Your task to perform on an android device: change alarm snooze length Image 0: 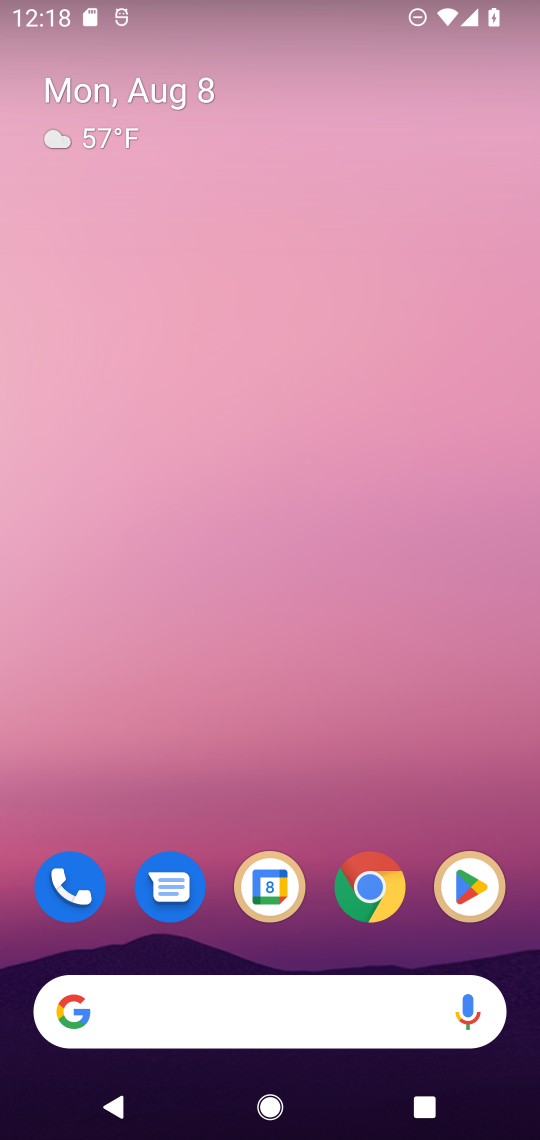
Step 0: drag from (374, 781) to (282, 75)
Your task to perform on an android device: change alarm snooze length Image 1: 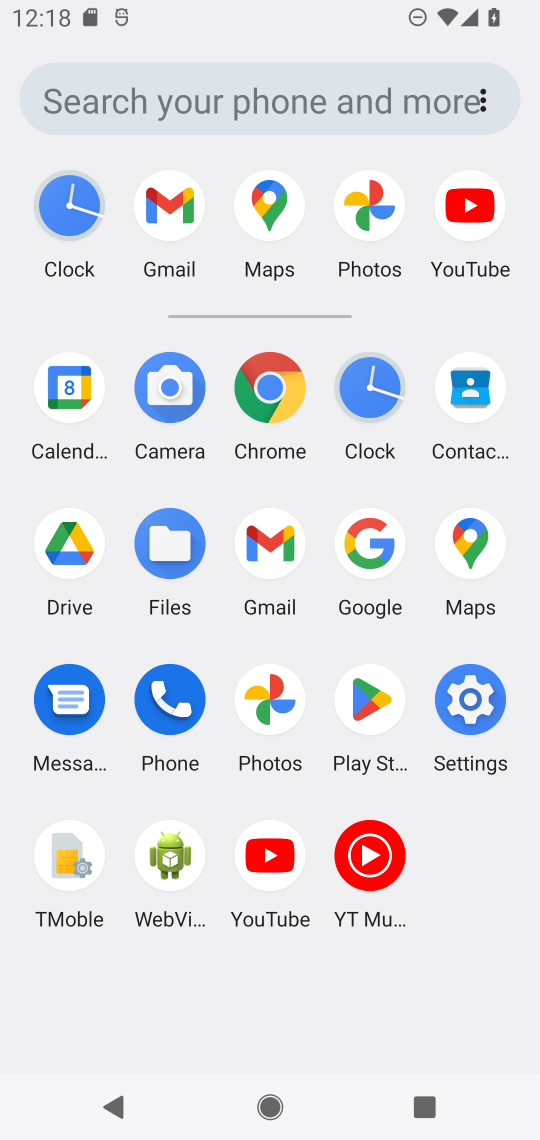
Step 1: click (374, 388)
Your task to perform on an android device: change alarm snooze length Image 2: 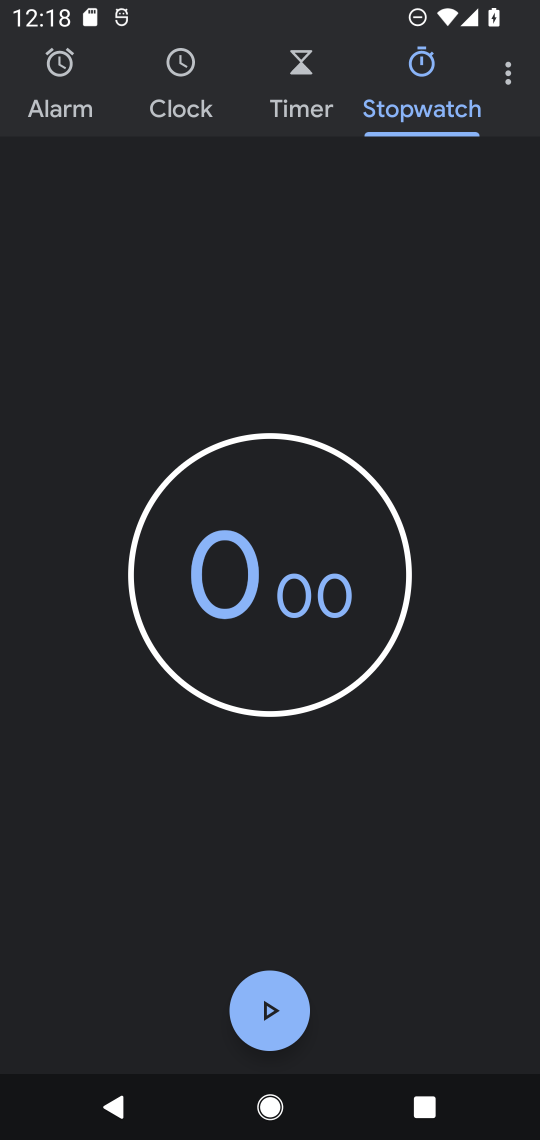
Step 2: click (507, 74)
Your task to perform on an android device: change alarm snooze length Image 3: 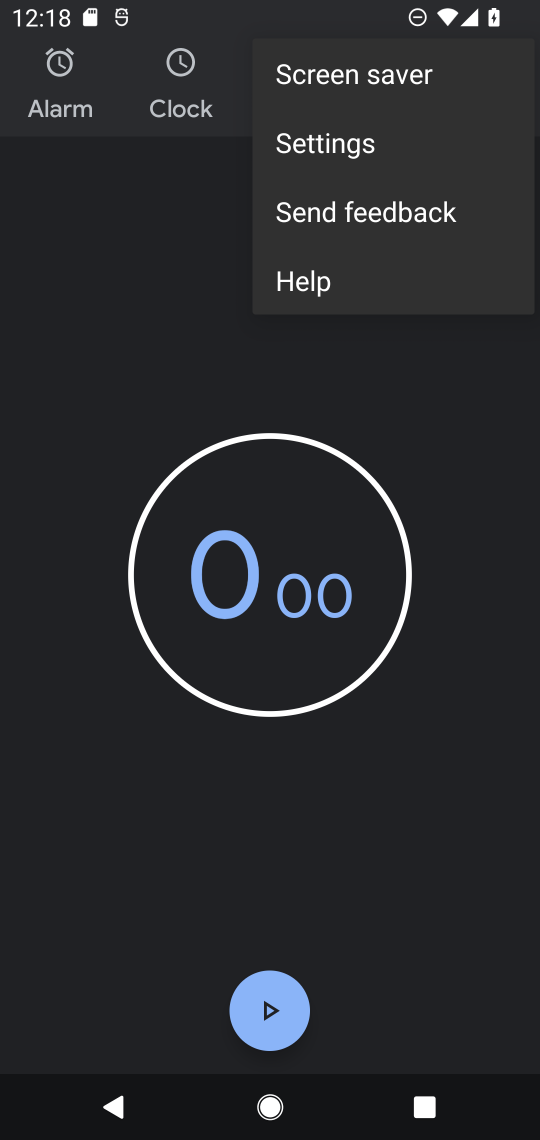
Step 3: click (338, 143)
Your task to perform on an android device: change alarm snooze length Image 4: 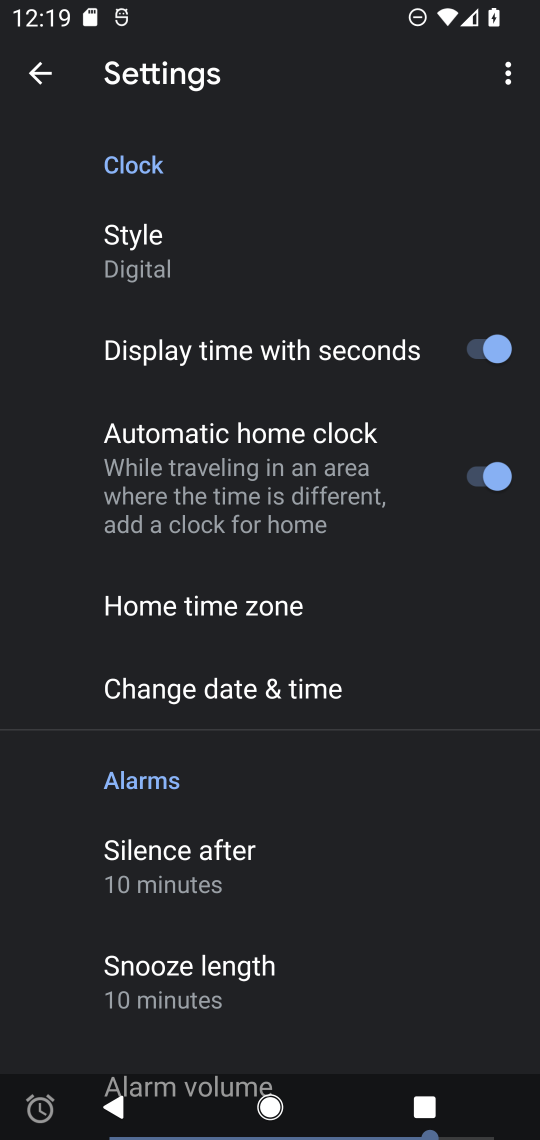
Step 4: click (200, 977)
Your task to perform on an android device: change alarm snooze length Image 5: 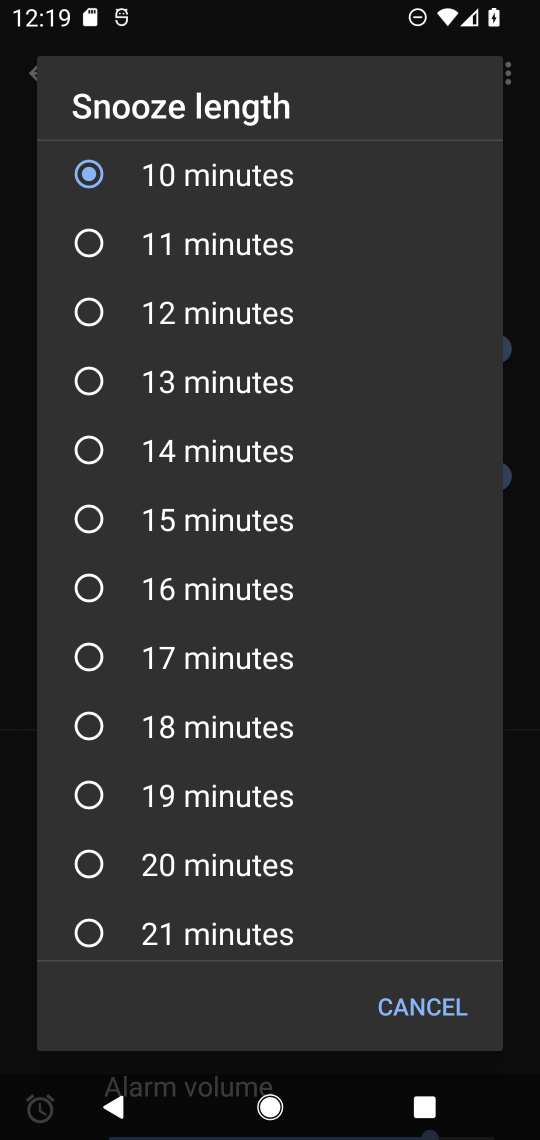
Step 5: click (77, 377)
Your task to perform on an android device: change alarm snooze length Image 6: 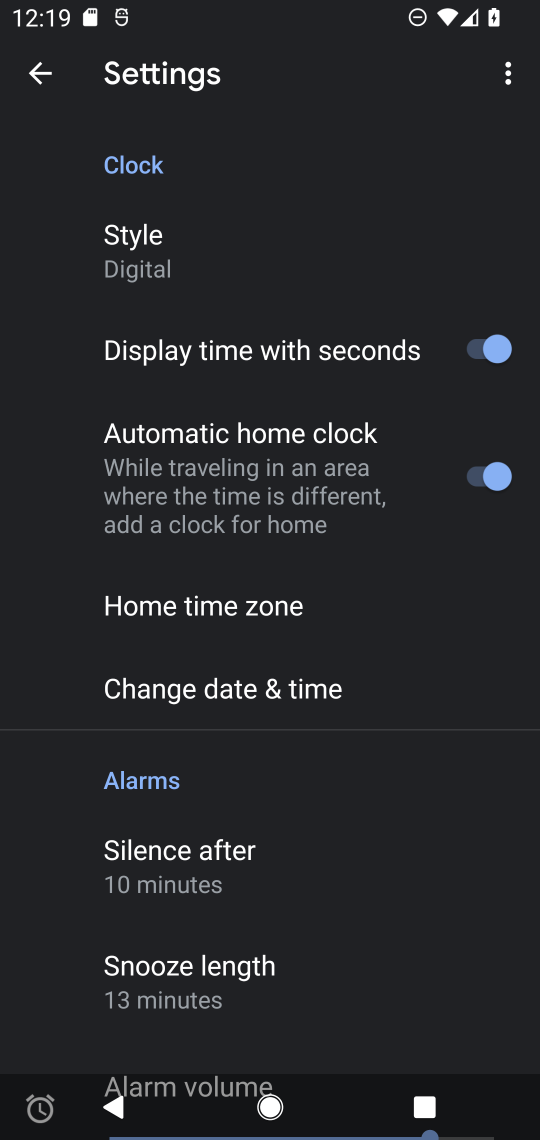
Step 6: task complete